Your task to perform on an android device: Open the calendar and show me this week's events? Image 0: 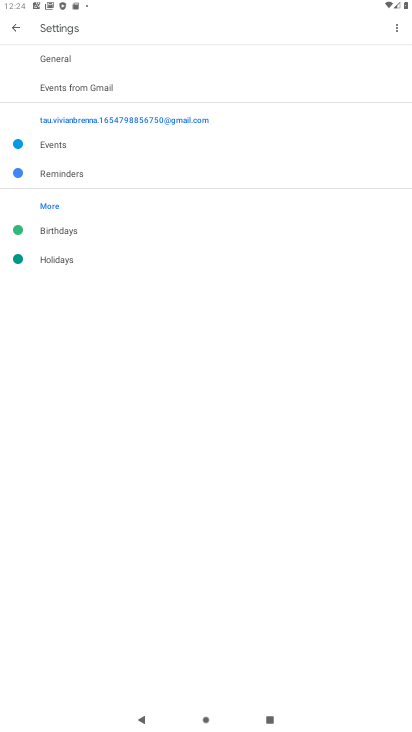
Step 0: press back button
Your task to perform on an android device: Open the calendar and show me this week's events? Image 1: 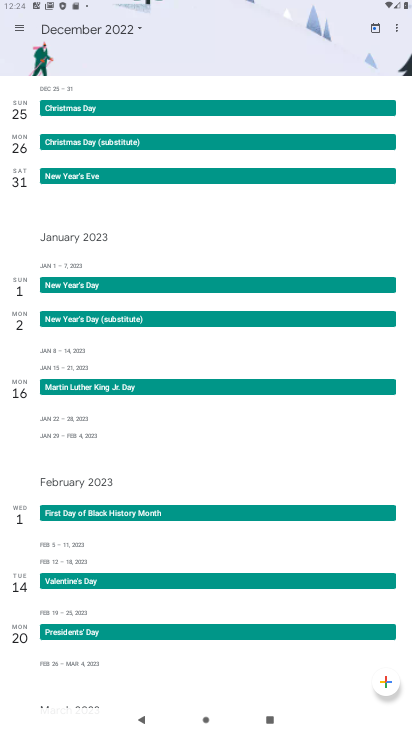
Step 1: click (11, 25)
Your task to perform on an android device: Open the calendar and show me this week's events? Image 2: 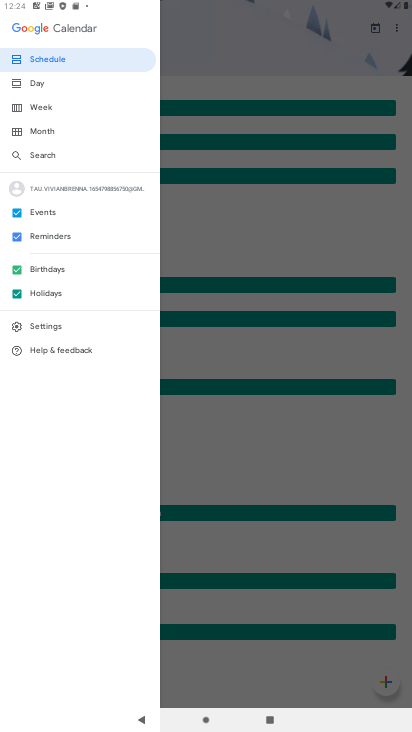
Step 2: click (38, 102)
Your task to perform on an android device: Open the calendar and show me this week's events? Image 3: 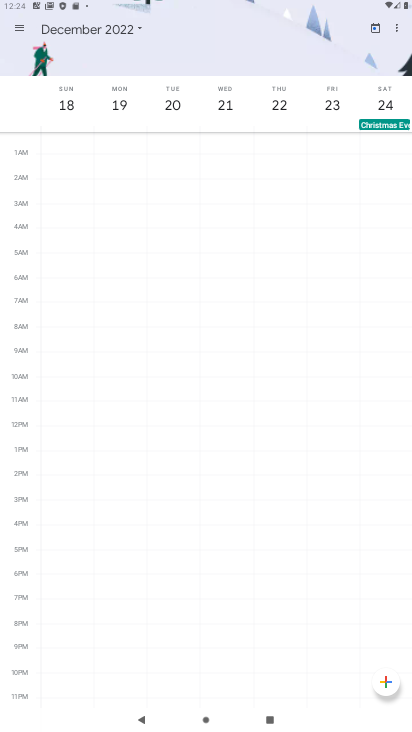
Step 3: click (137, 29)
Your task to perform on an android device: Open the calendar and show me this week's events? Image 4: 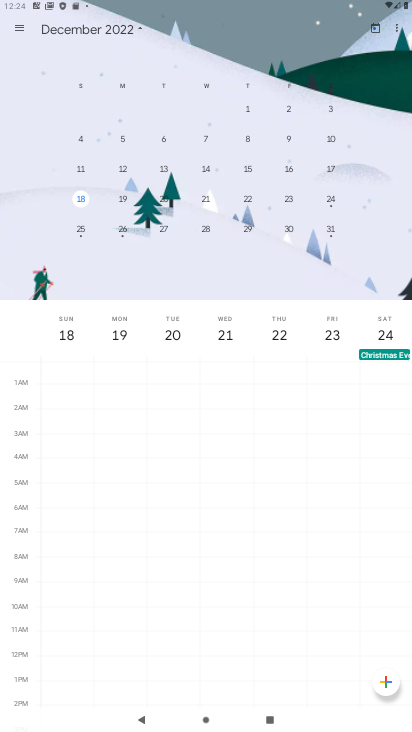
Step 4: drag from (75, 144) to (354, 154)
Your task to perform on an android device: Open the calendar and show me this week's events? Image 5: 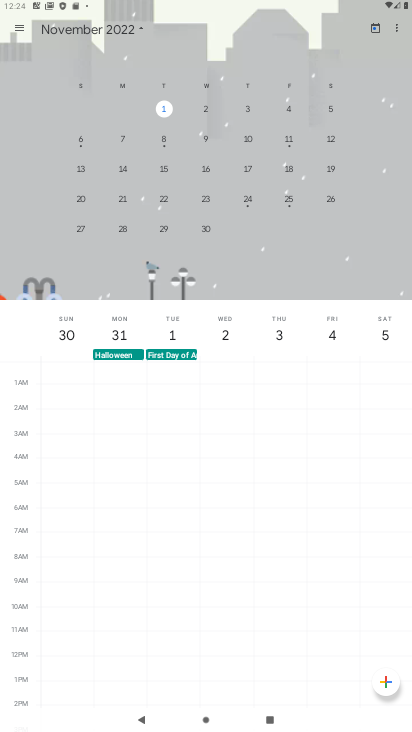
Step 5: drag from (80, 177) to (349, 172)
Your task to perform on an android device: Open the calendar and show me this week's events? Image 6: 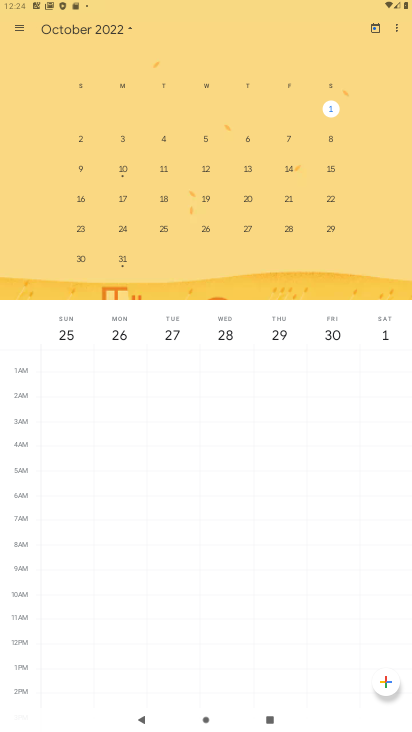
Step 6: drag from (75, 202) to (390, 194)
Your task to perform on an android device: Open the calendar and show me this week's events? Image 7: 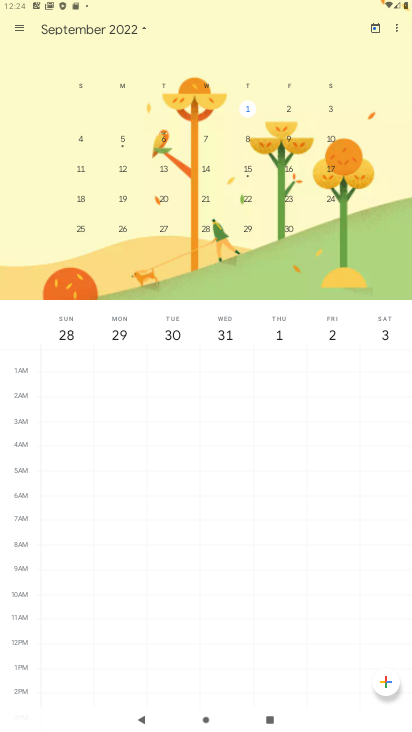
Step 7: drag from (71, 194) to (353, 172)
Your task to perform on an android device: Open the calendar and show me this week's events? Image 8: 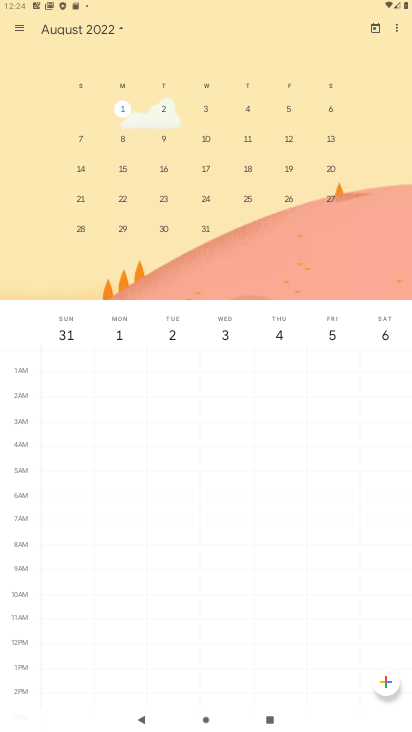
Step 8: drag from (77, 184) to (346, 184)
Your task to perform on an android device: Open the calendar and show me this week's events? Image 9: 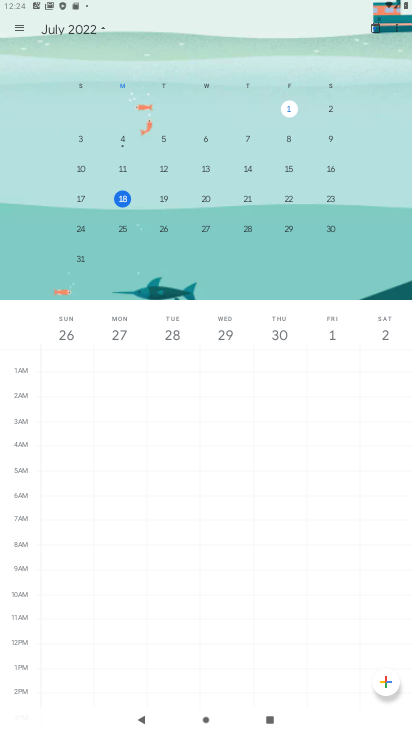
Step 9: click (121, 202)
Your task to perform on an android device: Open the calendar and show me this week's events? Image 10: 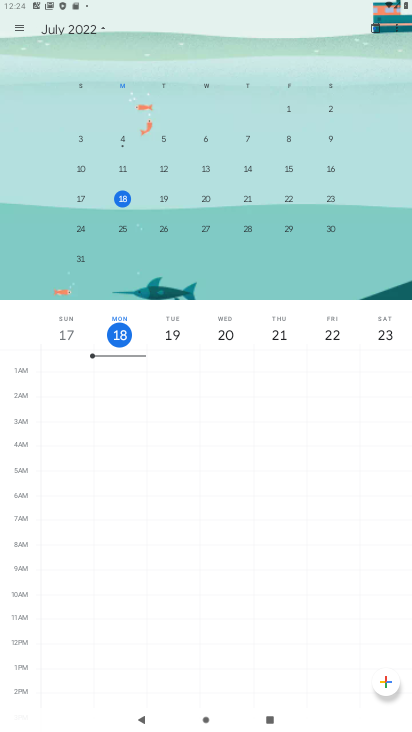
Step 10: task complete